Your task to perform on an android device: Go to ESPN.com Image 0: 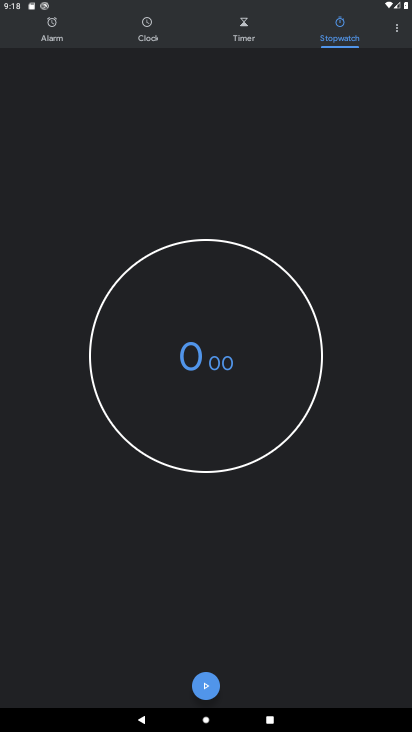
Step 0: press home button
Your task to perform on an android device: Go to ESPN.com Image 1: 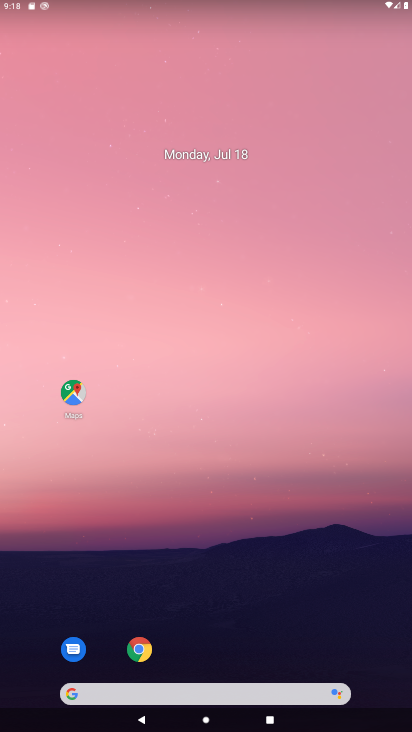
Step 1: drag from (281, 472) to (276, 101)
Your task to perform on an android device: Go to ESPN.com Image 2: 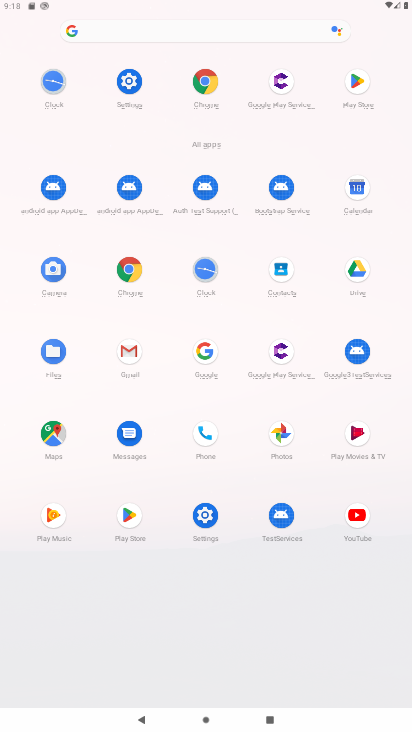
Step 2: click (125, 272)
Your task to perform on an android device: Go to ESPN.com Image 3: 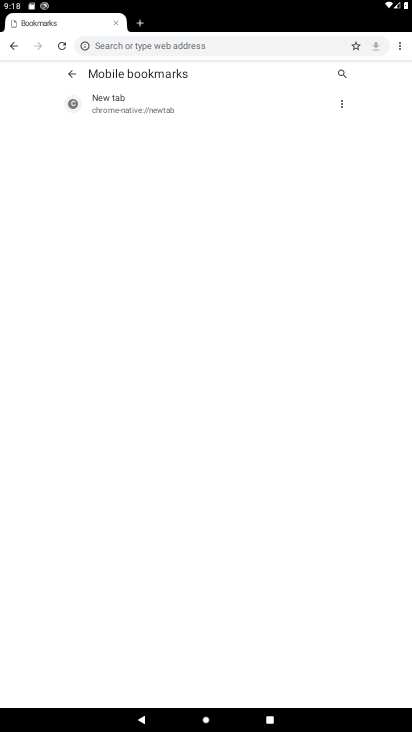
Step 3: click (1, 36)
Your task to perform on an android device: Go to ESPN.com Image 4: 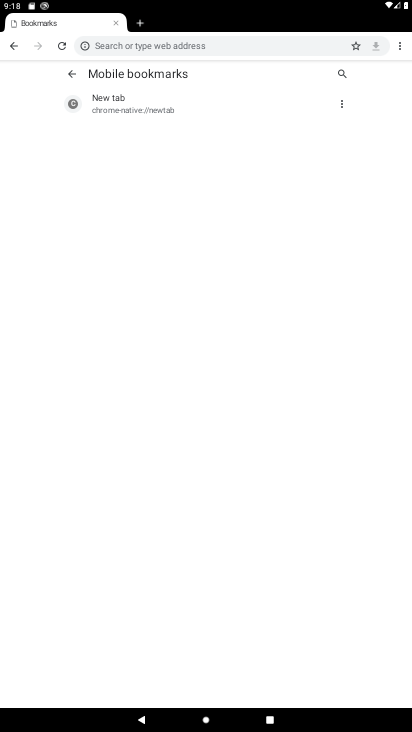
Step 4: click (10, 46)
Your task to perform on an android device: Go to ESPN.com Image 5: 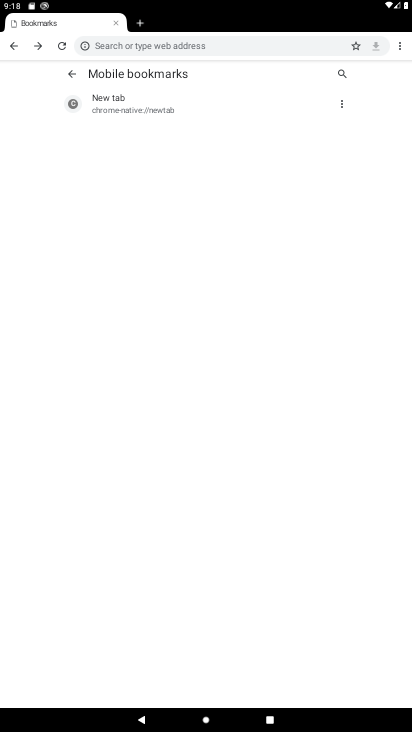
Step 5: click (71, 71)
Your task to perform on an android device: Go to ESPN.com Image 6: 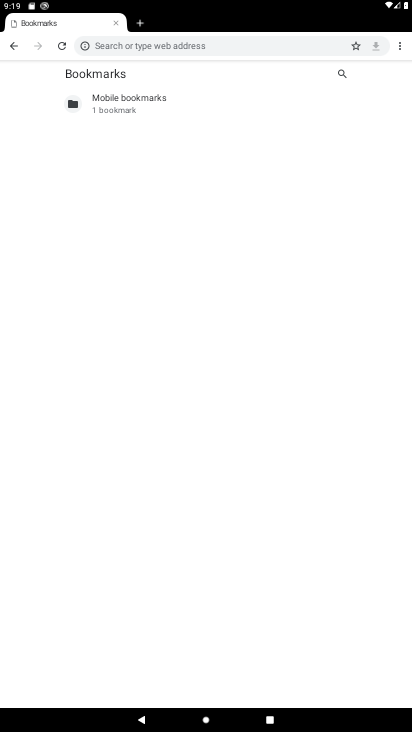
Step 6: click (10, 42)
Your task to perform on an android device: Go to ESPN.com Image 7: 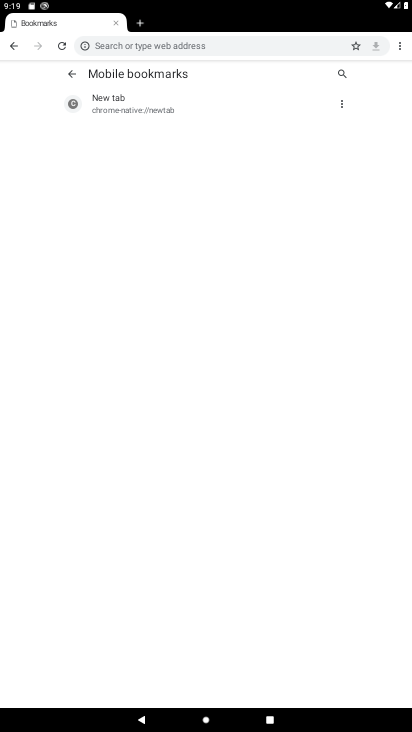
Step 7: click (140, 23)
Your task to perform on an android device: Go to ESPN.com Image 8: 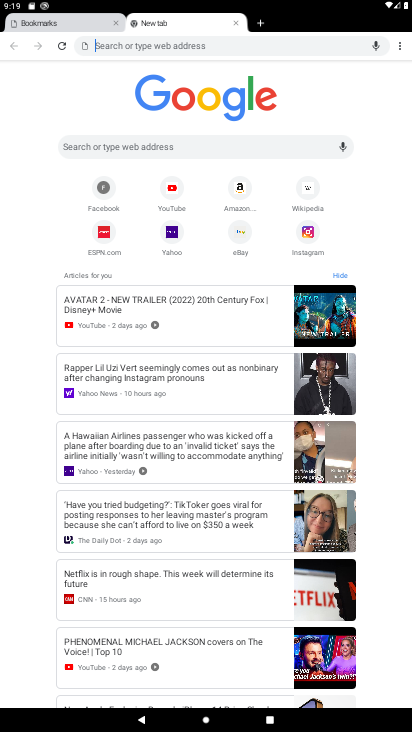
Step 8: click (100, 238)
Your task to perform on an android device: Go to ESPN.com Image 9: 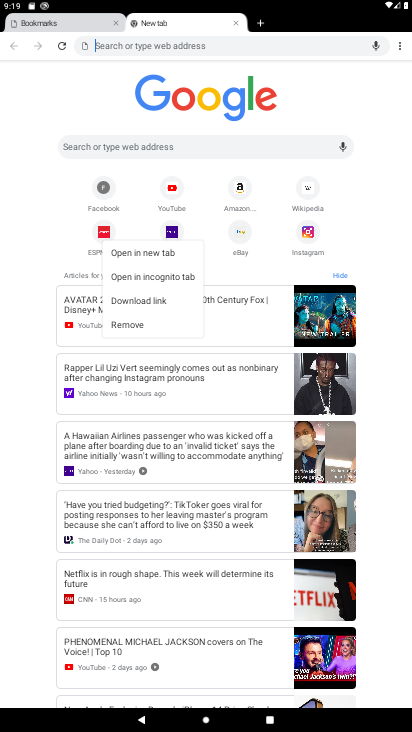
Step 9: click (101, 233)
Your task to perform on an android device: Go to ESPN.com Image 10: 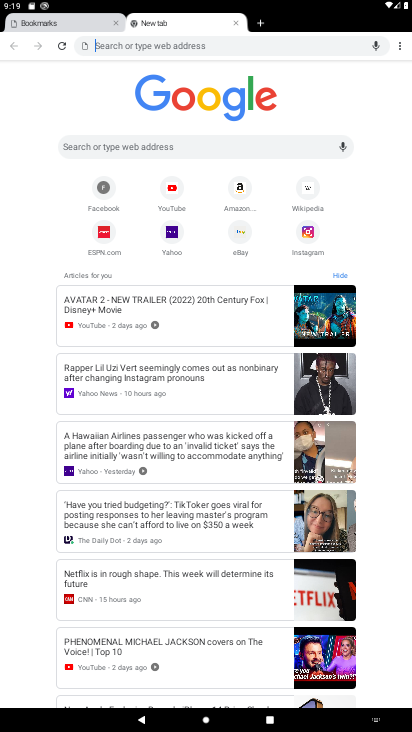
Step 10: click (100, 233)
Your task to perform on an android device: Go to ESPN.com Image 11: 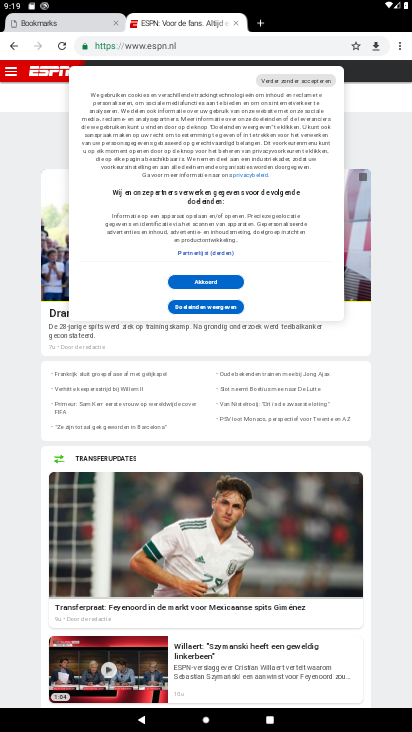
Step 11: task complete